Your task to perform on an android device: Open calendar and show me the first week of next month Image 0: 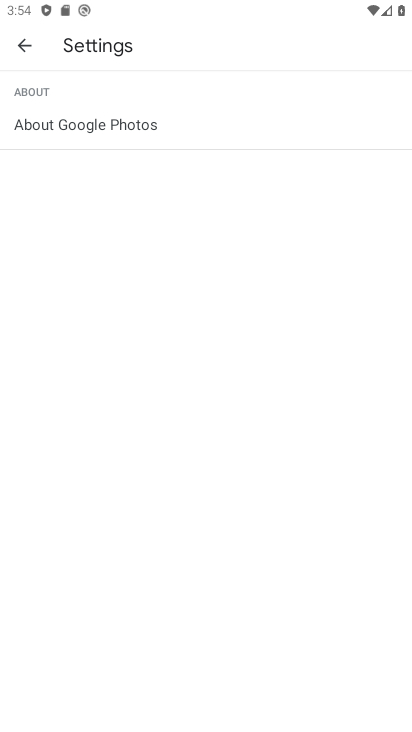
Step 0: press back button
Your task to perform on an android device: Open calendar and show me the first week of next month Image 1: 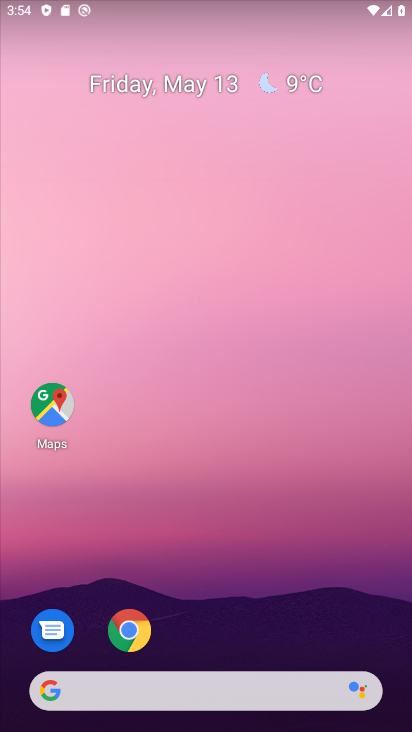
Step 1: drag from (298, 567) to (268, 68)
Your task to perform on an android device: Open calendar and show me the first week of next month Image 2: 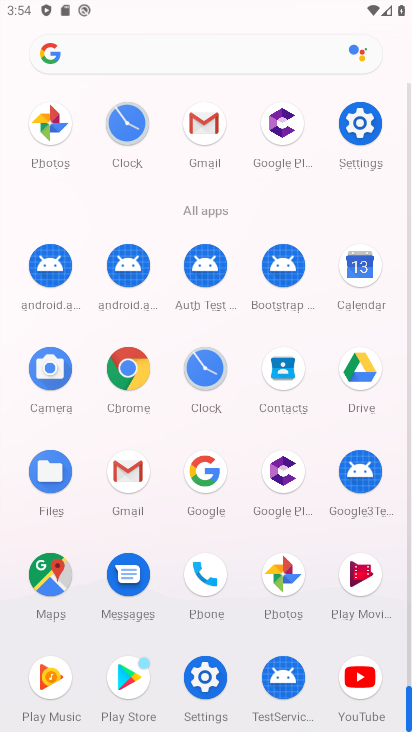
Step 2: drag from (14, 536) to (26, 194)
Your task to perform on an android device: Open calendar and show me the first week of next month Image 3: 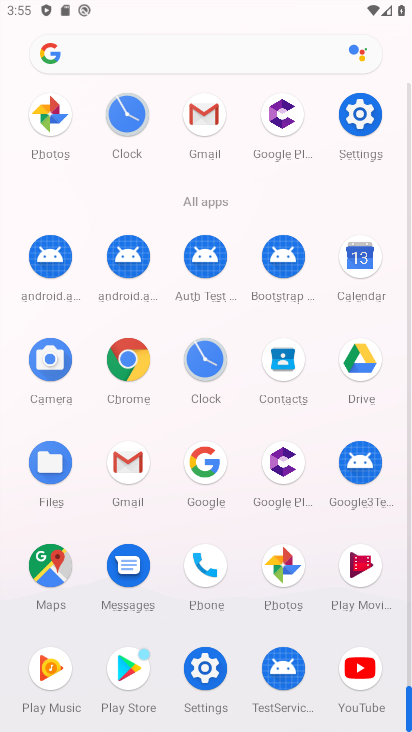
Step 3: click (359, 257)
Your task to perform on an android device: Open calendar and show me the first week of next month Image 4: 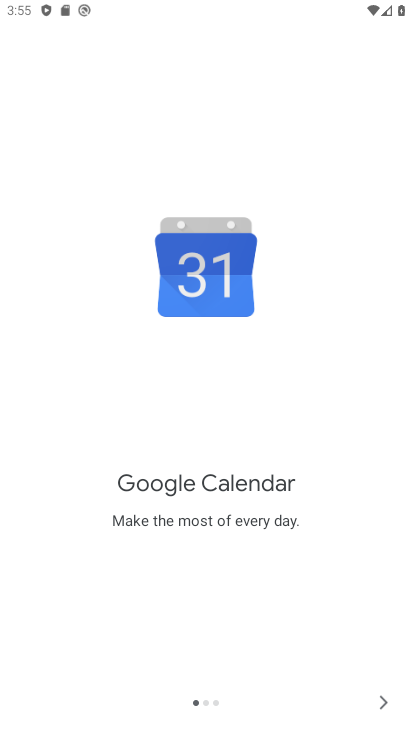
Step 4: click (384, 696)
Your task to perform on an android device: Open calendar and show me the first week of next month Image 5: 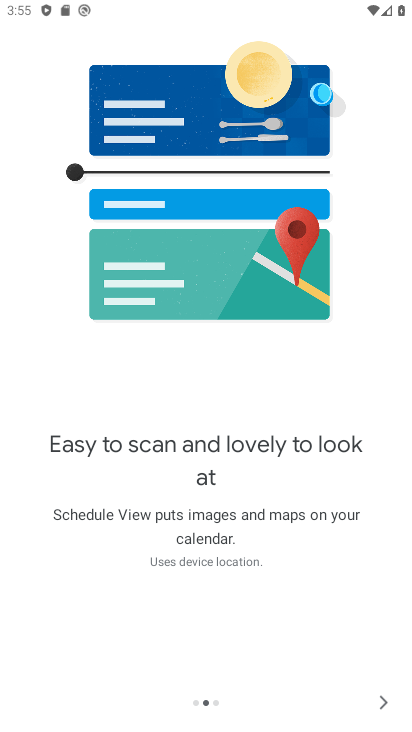
Step 5: click (384, 696)
Your task to perform on an android device: Open calendar and show me the first week of next month Image 6: 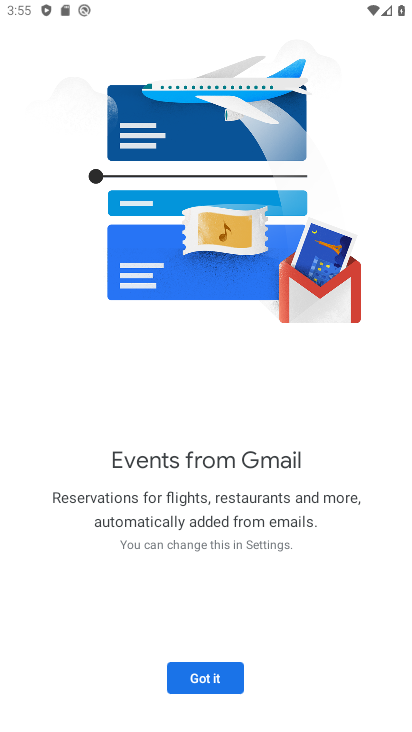
Step 6: click (195, 668)
Your task to perform on an android device: Open calendar and show me the first week of next month Image 7: 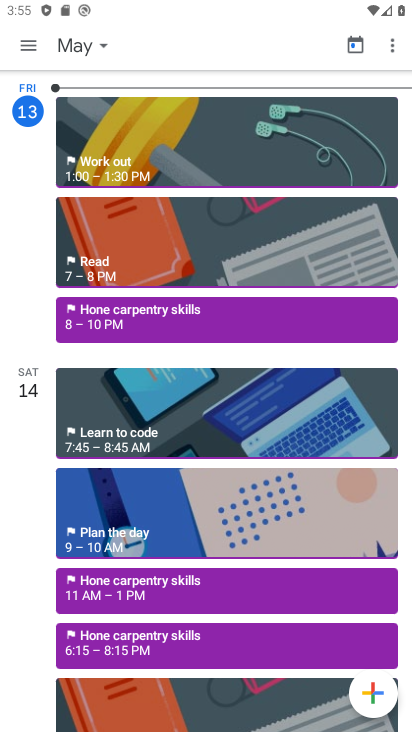
Step 7: drag from (175, 521) to (223, 248)
Your task to perform on an android device: Open calendar and show me the first week of next month Image 8: 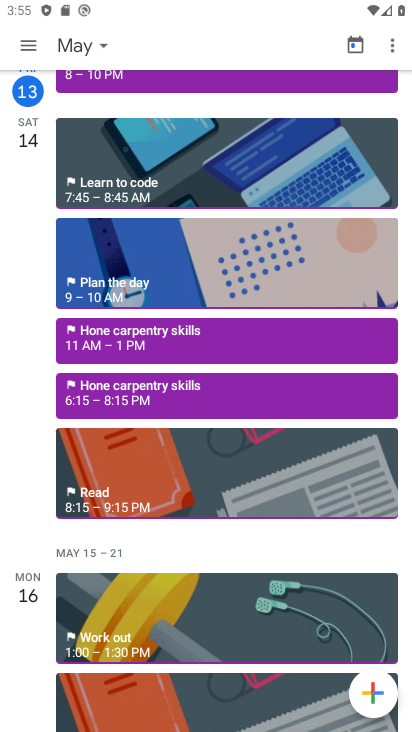
Step 8: click (77, 48)
Your task to perform on an android device: Open calendar and show me the first week of next month Image 9: 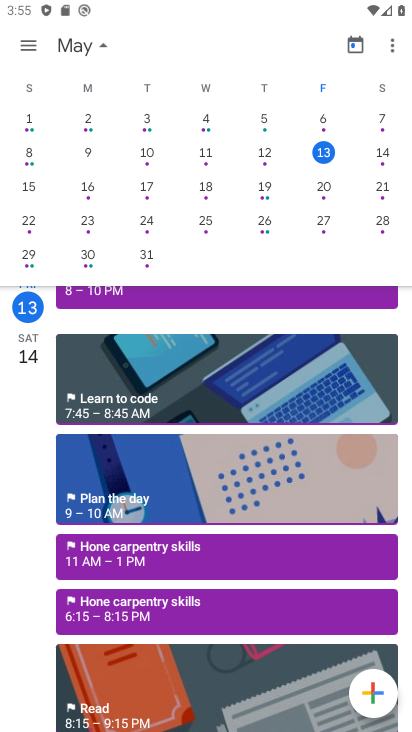
Step 9: drag from (374, 192) to (0, 213)
Your task to perform on an android device: Open calendar and show me the first week of next month Image 10: 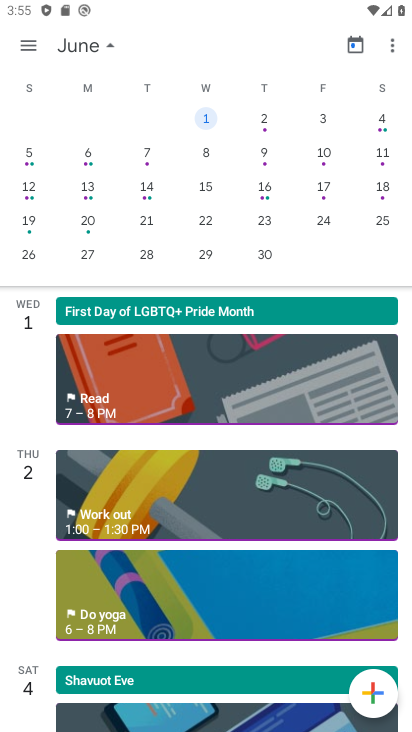
Step 10: click (15, 41)
Your task to perform on an android device: Open calendar and show me the first week of next month Image 11: 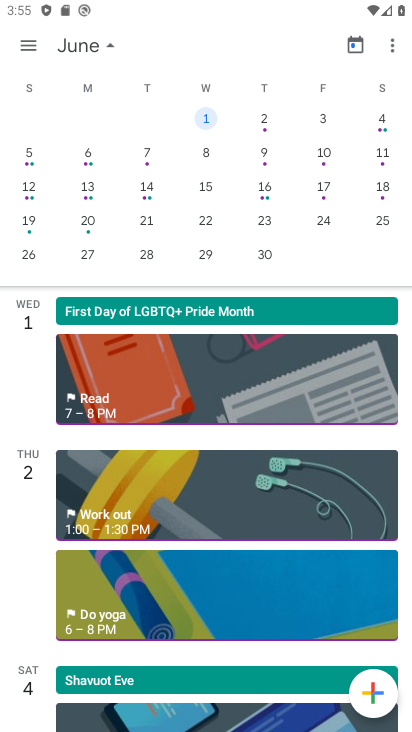
Step 11: click (23, 44)
Your task to perform on an android device: Open calendar and show me the first week of next month Image 12: 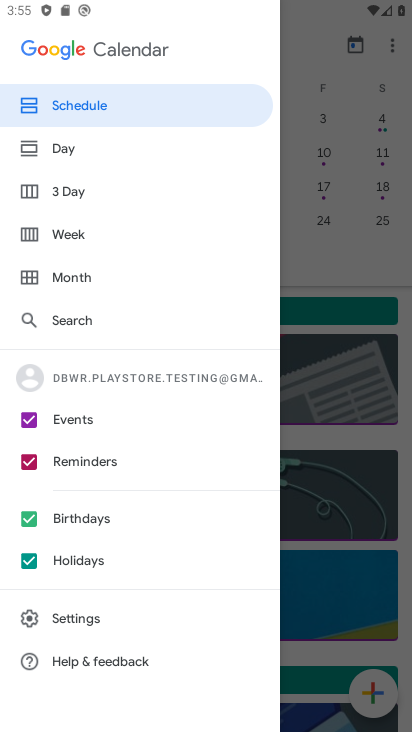
Step 12: click (65, 226)
Your task to perform on an android device: Open calendar and show me the first week of next month Image 13: 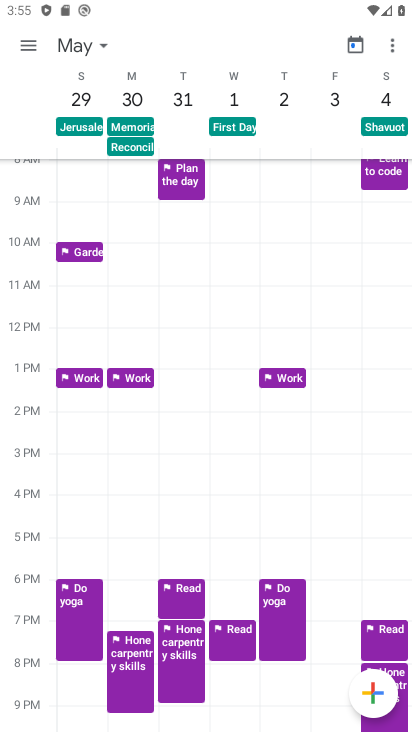
Step 13: task complete